Your task to perform on an android device: What is the news today? Image 0: 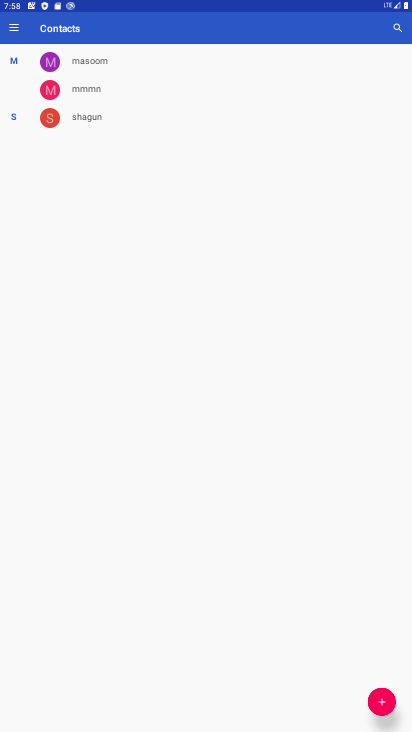
Step 0: press home button
Your task to perform on an android device: What is the news today? Image 1: 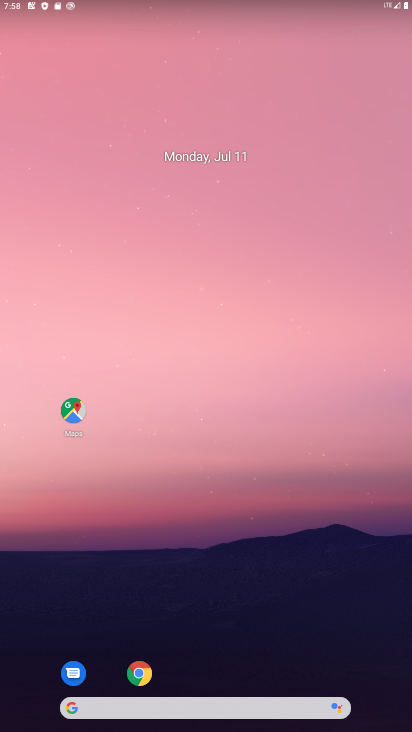
Step 1: drag from (223, 690) to (221, 441)
Your task to perform on an android device: What is the news today? Image 2: 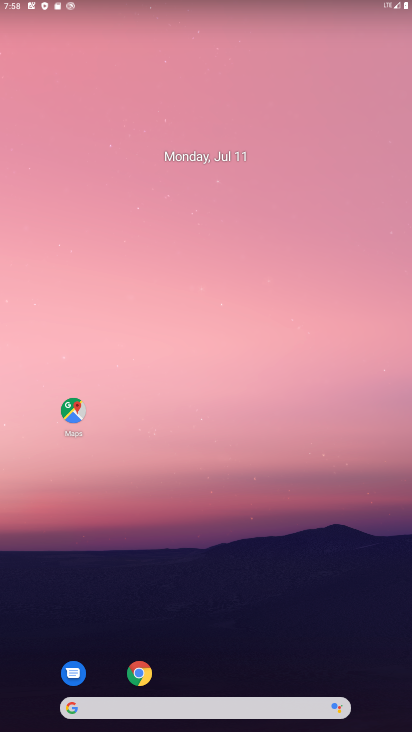
Step 2: drag from (153, 667) to (157, 376)
Your task to perform on an android device: What is the news today? Image 3: 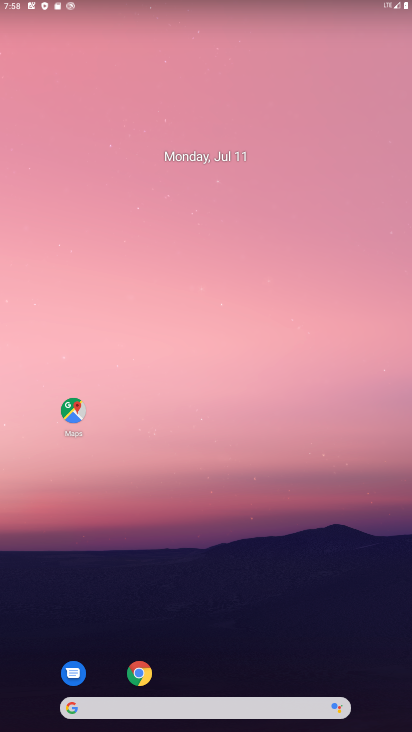
Step 3: drag from (283, 669) to (312, 234)
Your task to perform on an android device: What is the news today? Image 4: 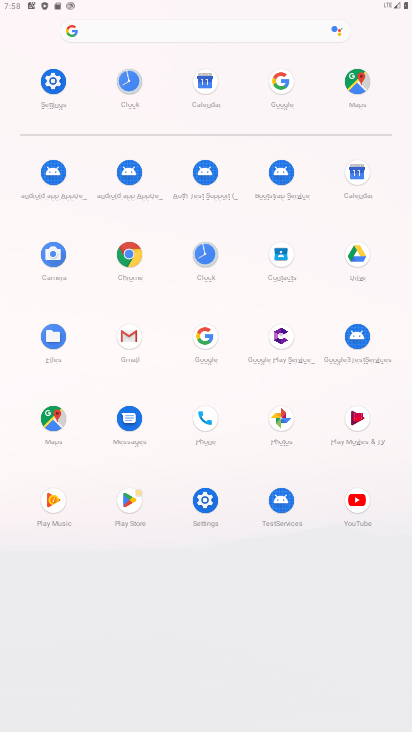
Step 4: click (202, 332)
Your task to perform on an android device: What is the news today? Image 5: 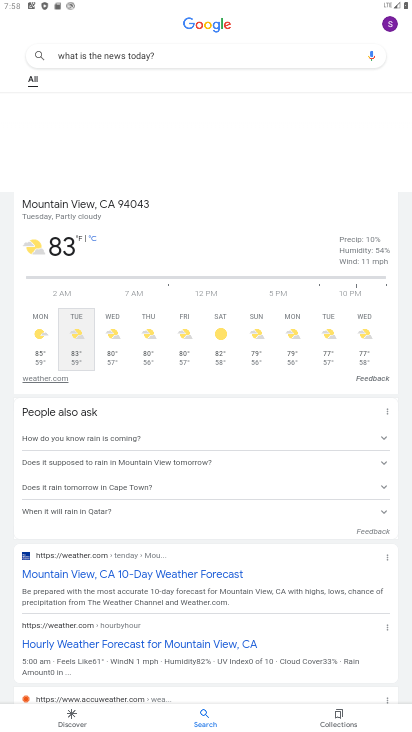
Step 5: click (174, 48)
Your task to perform on an android device: What is the news today? Image 6: 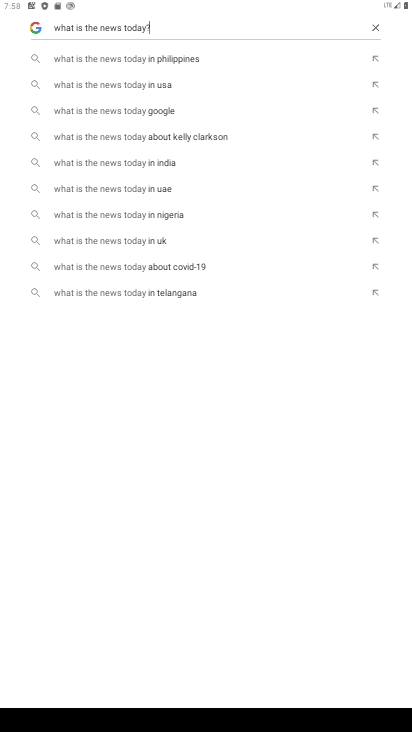
Step 6: click (119, 38)
Your task to perform on an android device: What is the news today? Image 7: 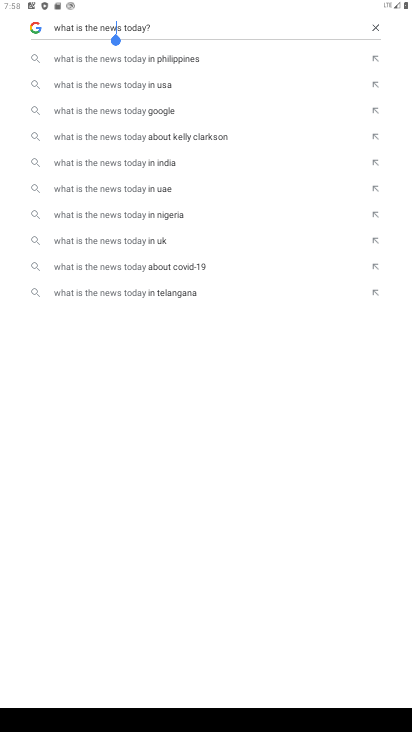
Step 7: click (157, 29)
Your task to perform on an android device: What is the news today? Image 8: 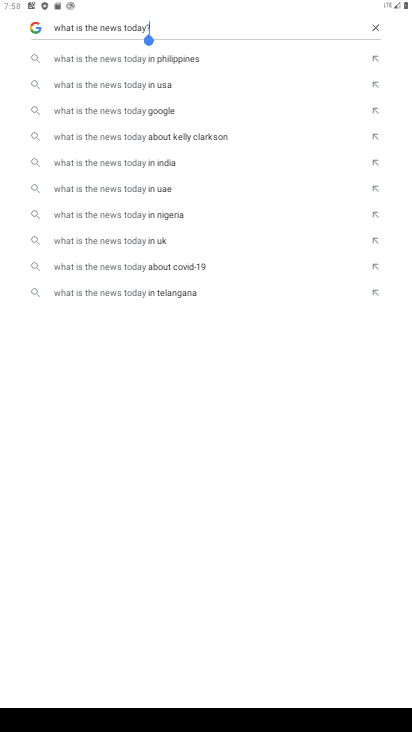
Step 8: click (149, 63)
Your task to perform on an android device: What is the news today? Image 9: 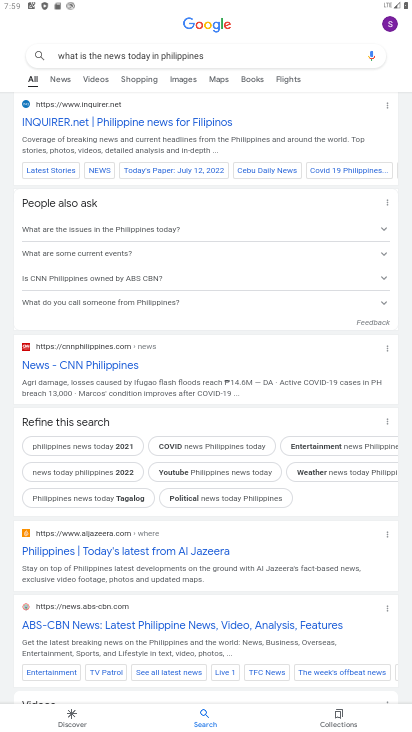
Step 9: task complete